Your task to perform on an android device: Search for the ikea sjalv lamp Image 0: 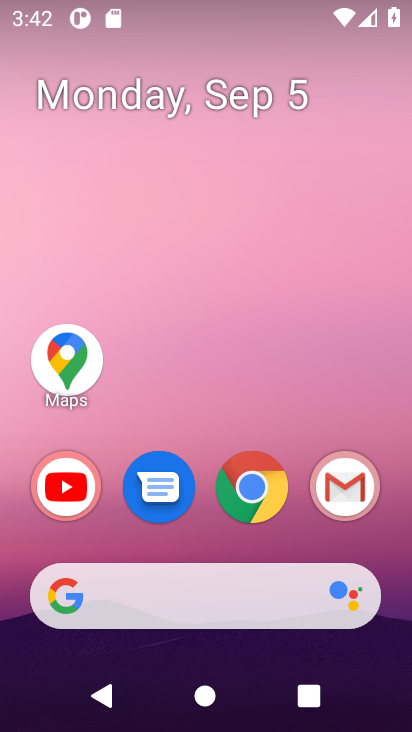
Step 0: click (164, 611)
Your task to perform on an android device: Search for the ikea sjalv lamp Image 1: 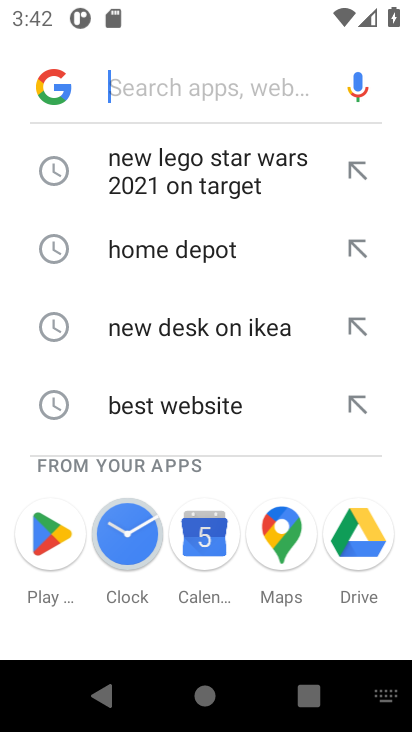
Step 1: type "the ikea sjalv lamp"
Your task to perform on an android device: Search for the ikea sjalv lamp Image 2: 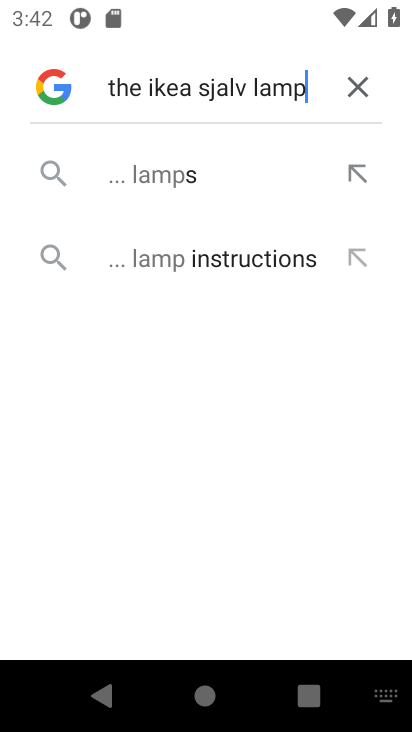
Step 2: click (174, 174)
Your task to perform on an android device: Search for the ikea sjalv lamp Image 3: 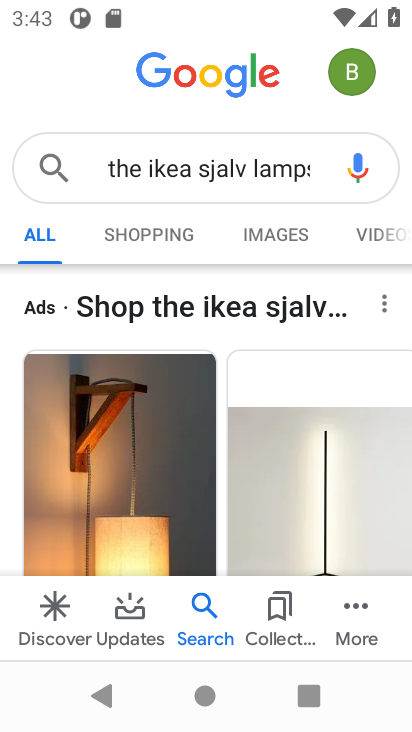
Step 3: task complete